Your task to perform on an android device: Open battery settings Image 0: 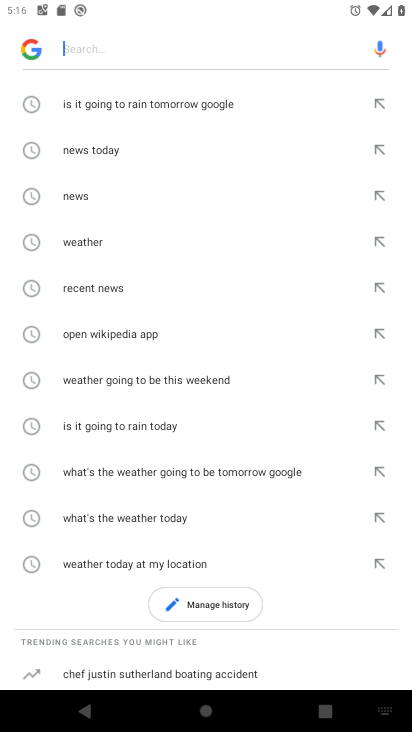
Step 0: press back button
Your task to perform on an android device: Open battery settings Image 1: 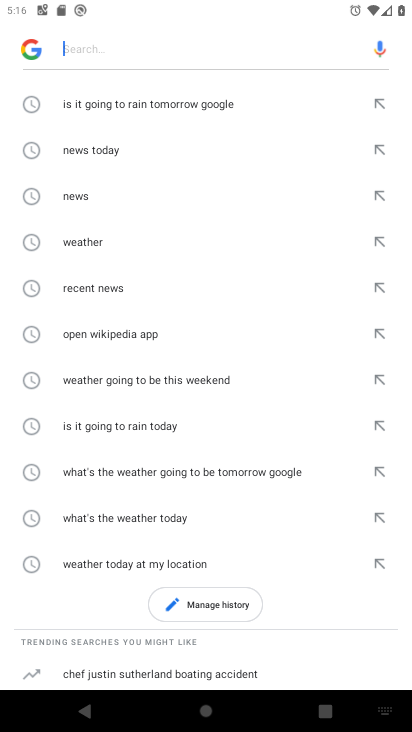
Step 1: press back button
Your task to perform on an android device: Open battery settings Image 2: 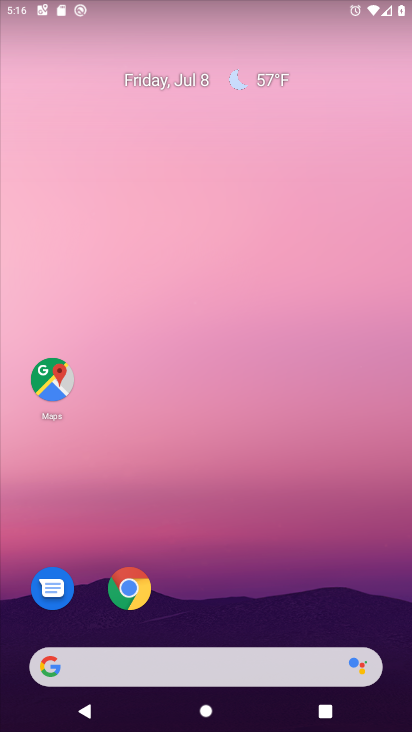
Step 2: drag from (247, 500) to (108, 106)
Your task to perform on an android device: Open battery settings Image 3: 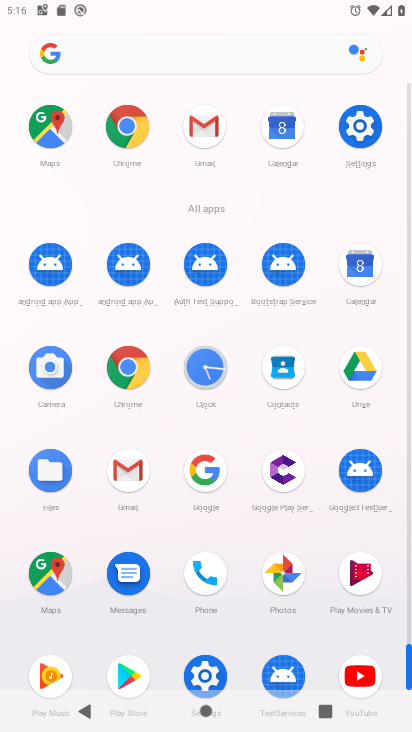
Step 3: click (358, 128)
Your task to perform on an android device: Open battery settings Image 4: 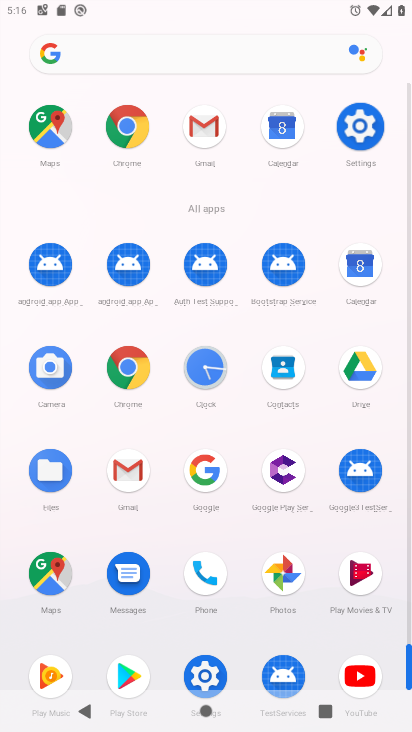
Step 4: click (362, 124)
Your task to perform on an android device: Open battery settings Image 5: 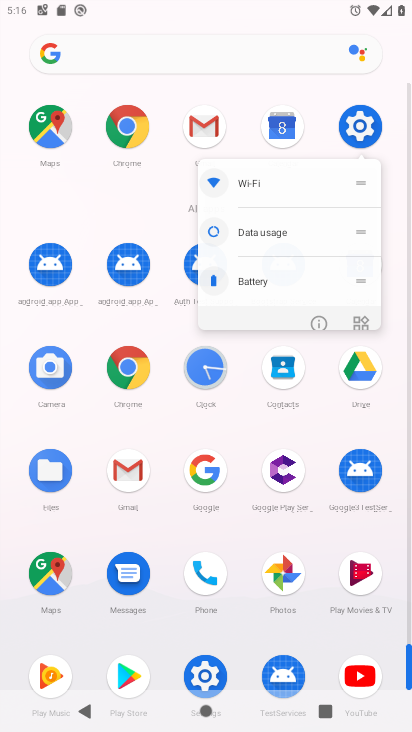
Step 5: click (363, 114)
Your task to perform on an android device: Open battery settings Image 6: 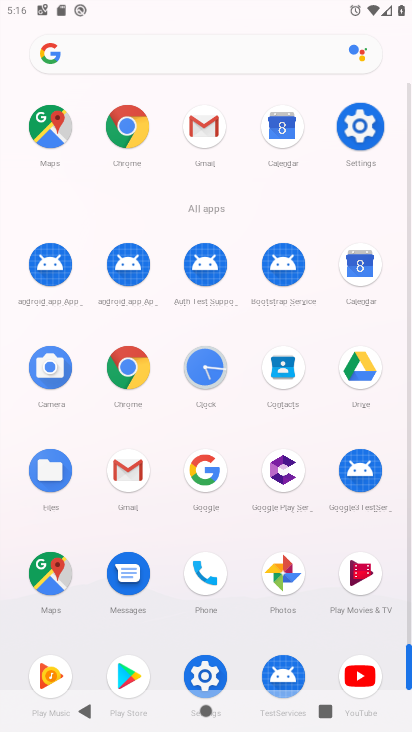
Step 6: click (368, 120)
Your task to perform on an android device: Open battery settings Image 7: 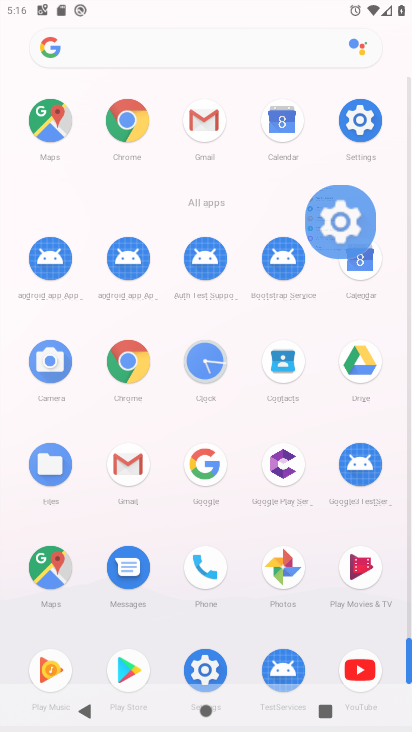
Step 7: click (364, 129)
Your task to perform on an android device: Open battery settings Image 8: 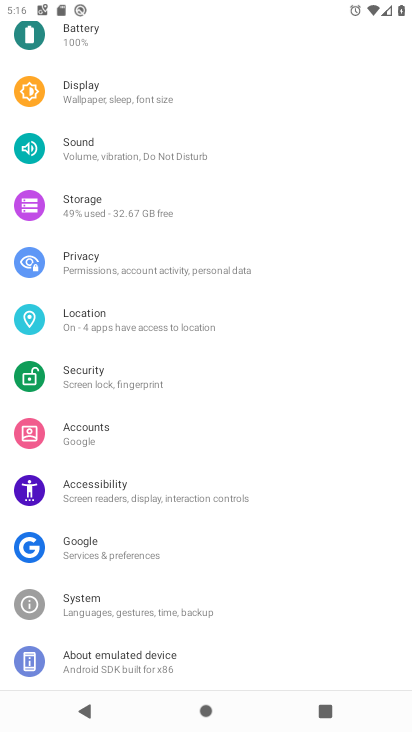
Step 8: click (363, 130)
Your task to perform on an android device: Open battery settings Image 9: 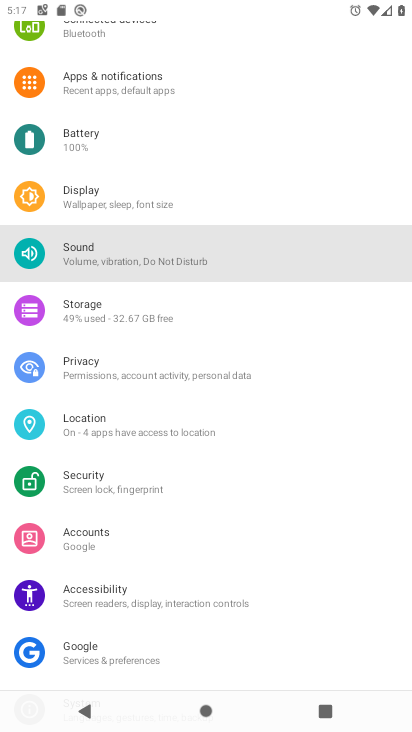
Step 9: click (363, 130)
Your task to perform on an android device: Open battery settings Image 10: 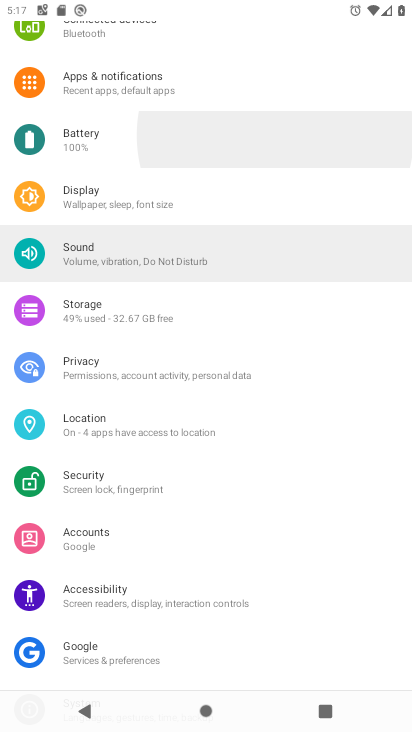
Step 10: click (363, 130)
Your task to perform on an android device: Open battery settings Image 11: 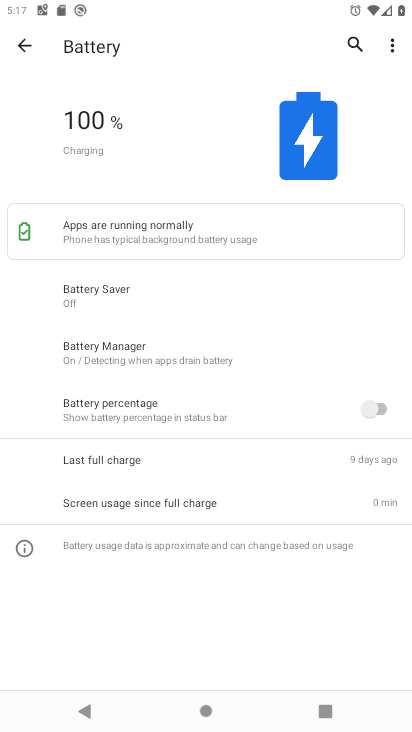
Step 11: task complete